Your task to perform on an android device: Open Chrome and go to settings Image 0: 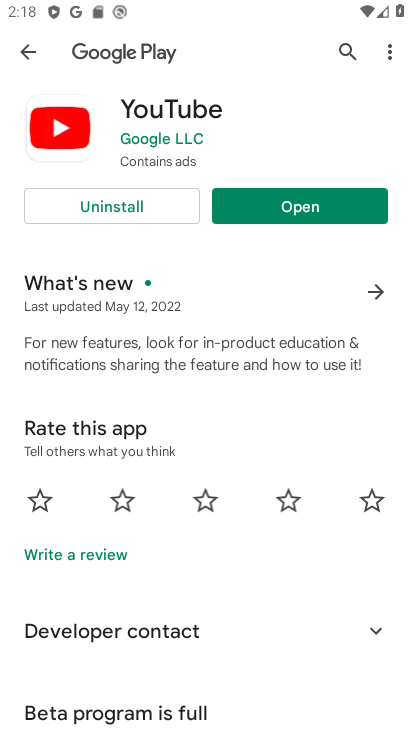
Step 0: press home button
Your task to perform on an android device: Open Chrome and go to settings Image 1: 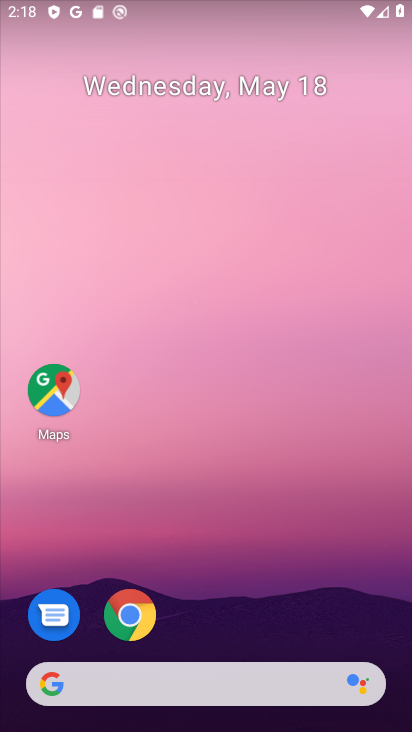
Step 1: click (131, 616)
Your task to perform on an android device: Open Chrome and go to settings Image 2: 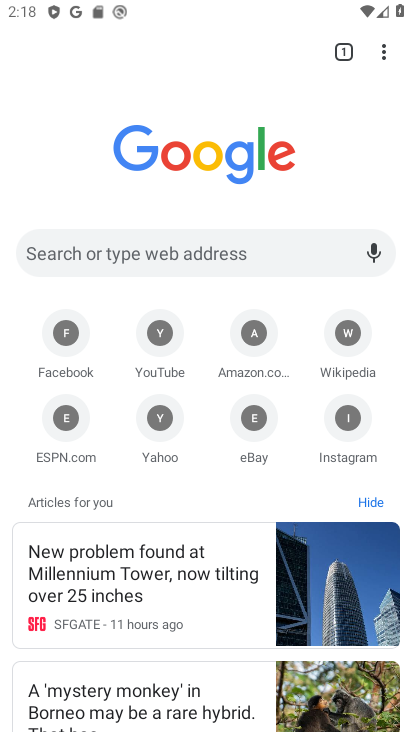
Step 2: click (385, 57)
Your task to perform on an android device: Open Chrome and go to settings Image 3: 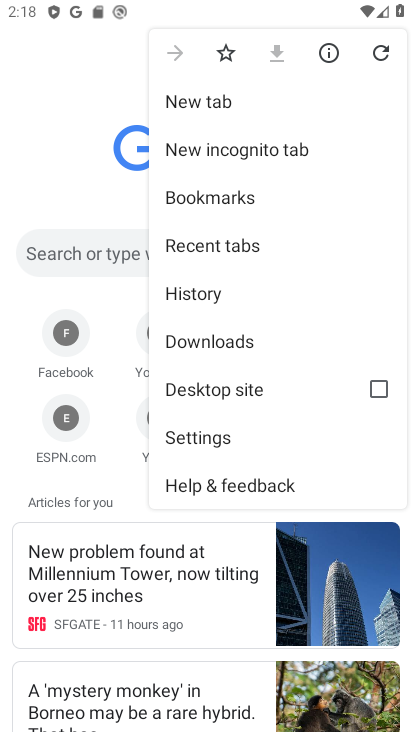
Step 3: click (224, 442)
Your task to perform on an android device: Open Chrome and go to settings Image 4: 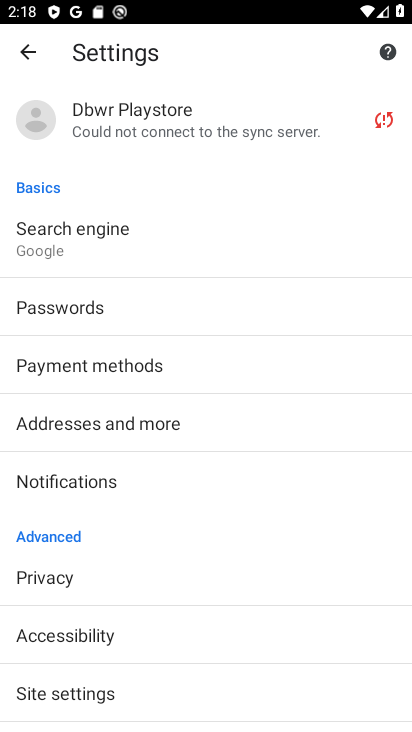
Step 4: task complete